Your task to perform on an android device: choose inbox layout in the gmail app Image 0: 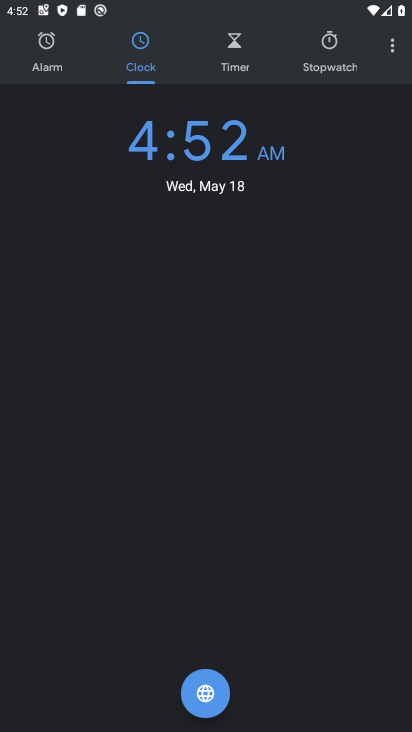
Step 0: press home button
Your task to perform on an android device: choose inbox layout in the gmail app Image 1: 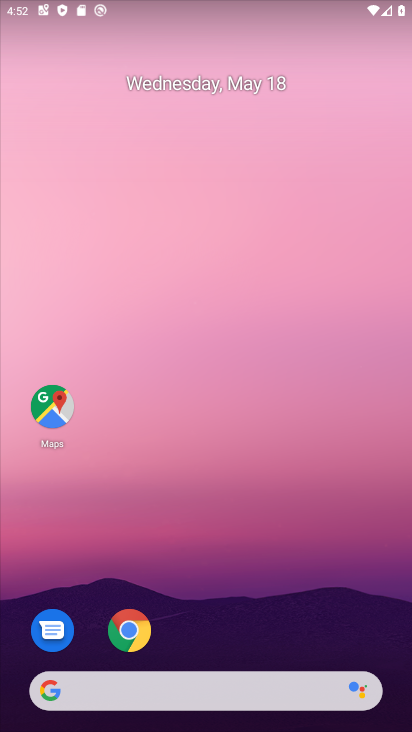
Step 1: drag from (218, 686) to (181, 170)
Your task to perform on an android device: choose inbox layout in the gmail app Image 2: 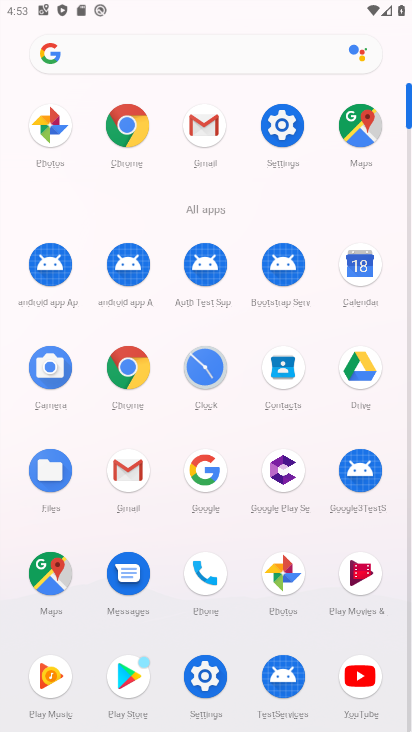
Step 2: click (197, 132)
Your task to perform on an android device: choose inbox layout in the gmail app Image 3: 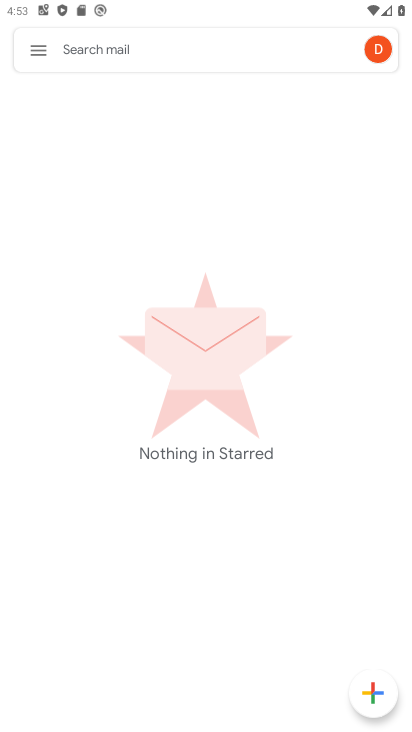
Step 3: click (39, 48)
Your task to perform on an android device: choose inbox layout in the gmail app Image 4: 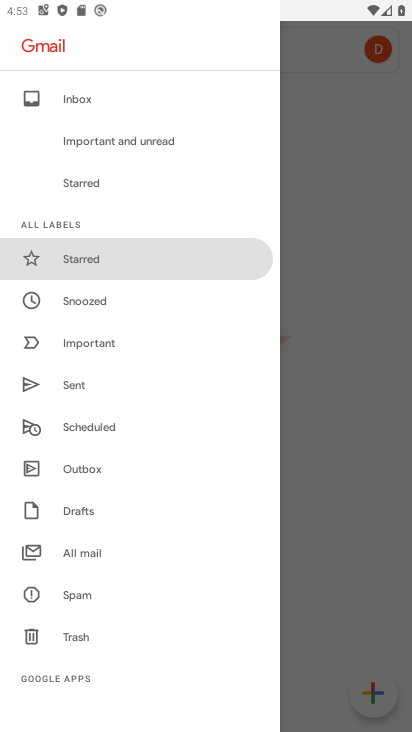
Step 4: drag from (106, 660) to (127, 391)
Your task to perform on an android device: choose inbox layout in the gmail app Image 5: 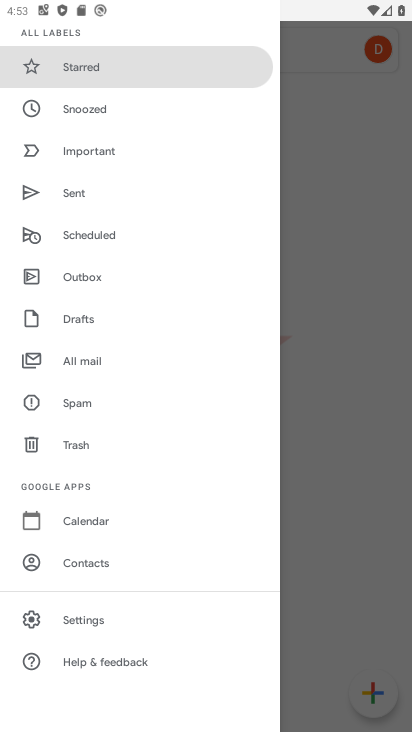
Step 5: click (73, 620)
Your task to perform on an android device: choose inbox layout in the gmail app Image 6: 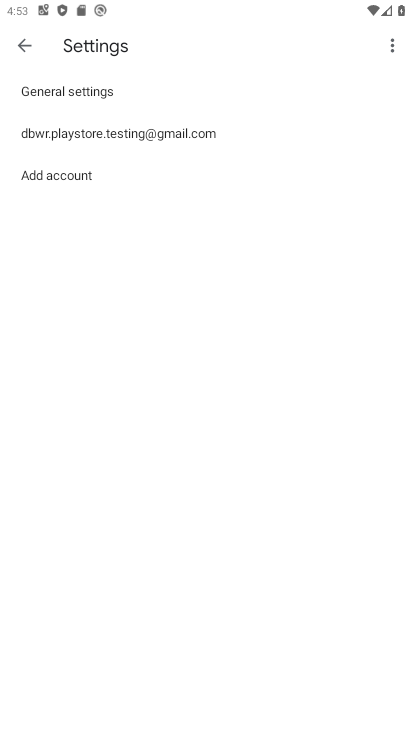
Step 6: click (71, 138)
Your task to perform on an android device: choose inbox layout in the gmail app Image 7: 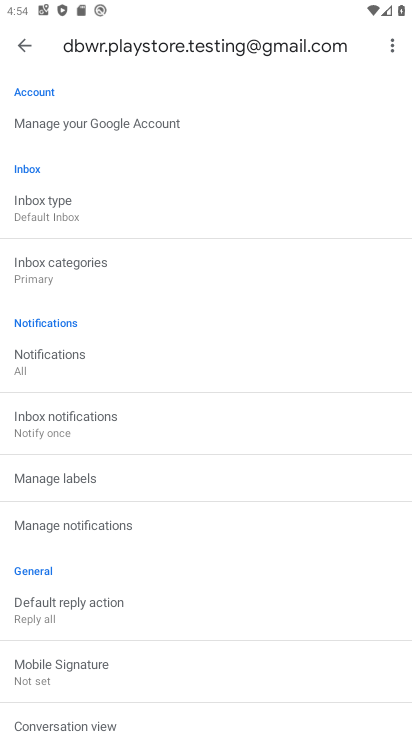
Step 7: click (52, 211)
Your task to perform on an android device: choose inbox layout in the gmail app Image 8: 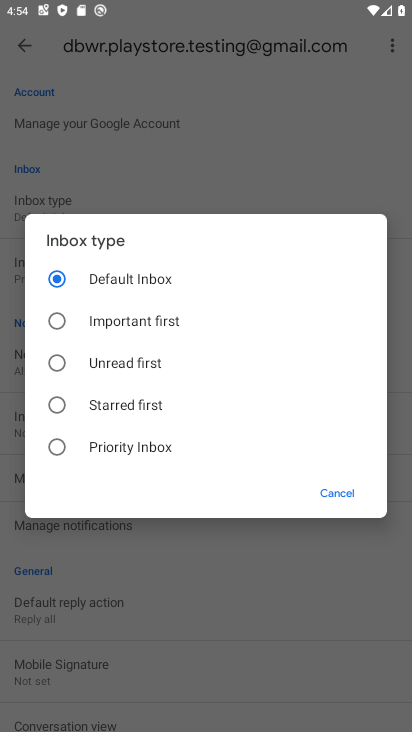
Step 8: click (133, 446)
Your task to perform on an android device: choose inbox layout in the gmail app Image 9: 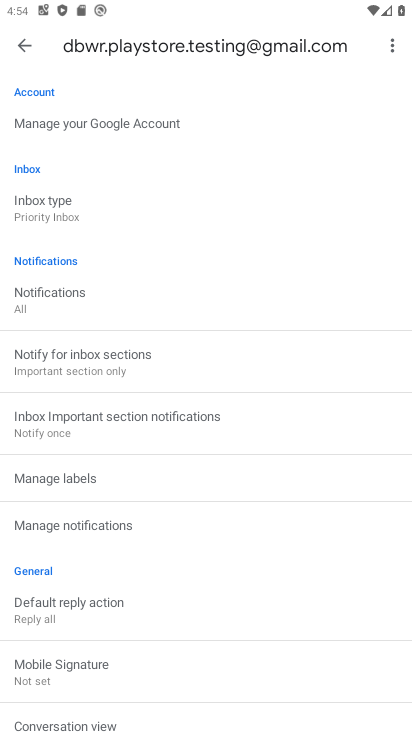
Step 9: task complete